Your task to perform on an android device: uninstall "Facebook Lite" Image 0: 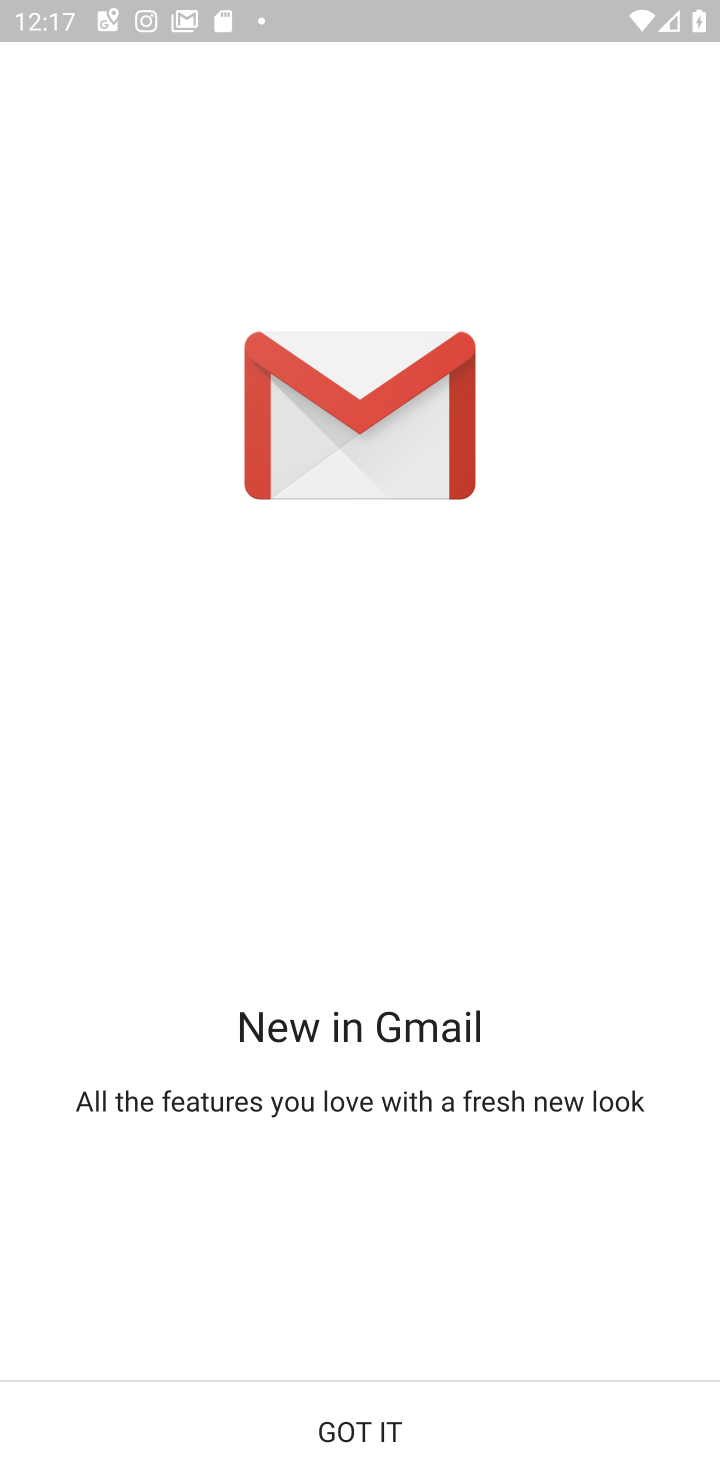
Step 0: press home button
Your task to perform on an android device: uninstall "Facebook Lite" Image 1: 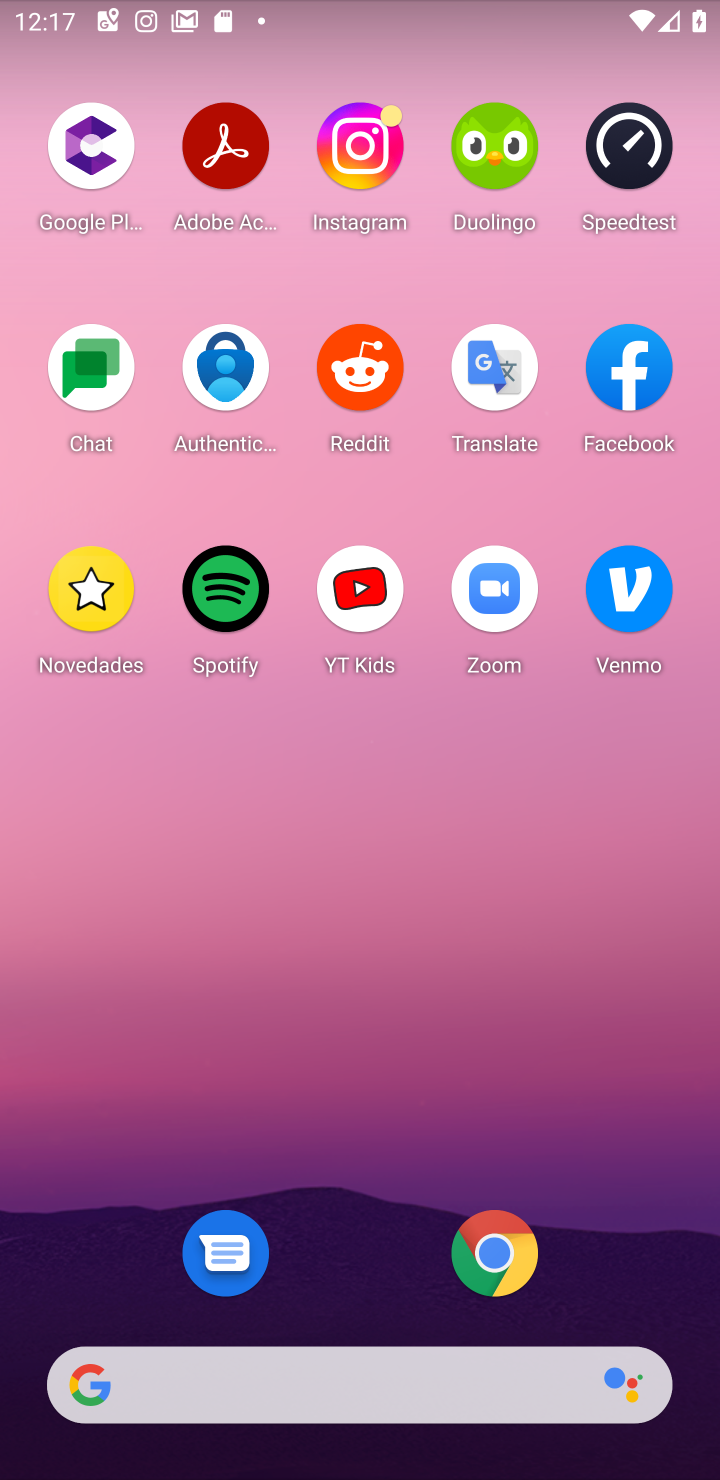
Step 1: drag from (318, 1198) to (330, 131)
Your task to perform on an android device: uninstall "Facebook Lite" Image 2: 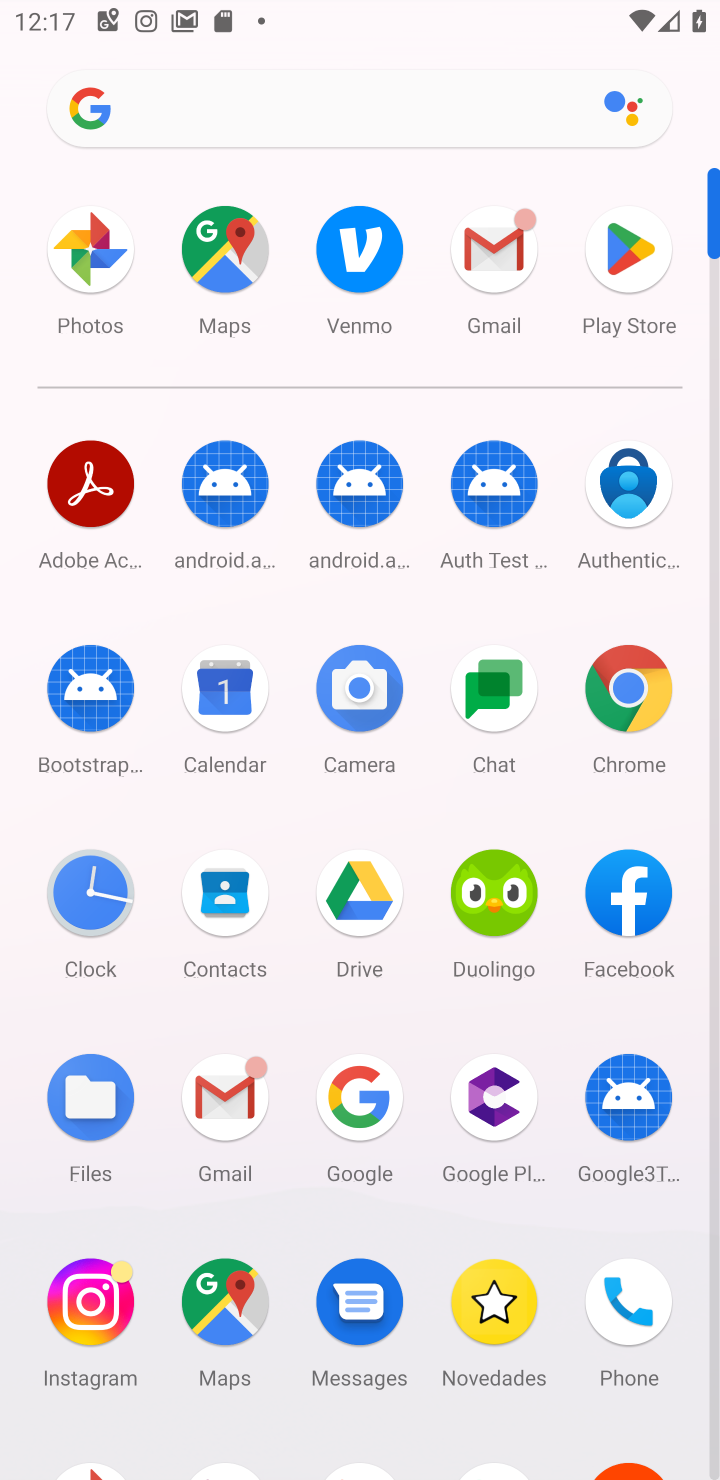
Step 2: click (626, 245)
Your task to perform on an android device: uninstall "Facebook Lite" Image 3: 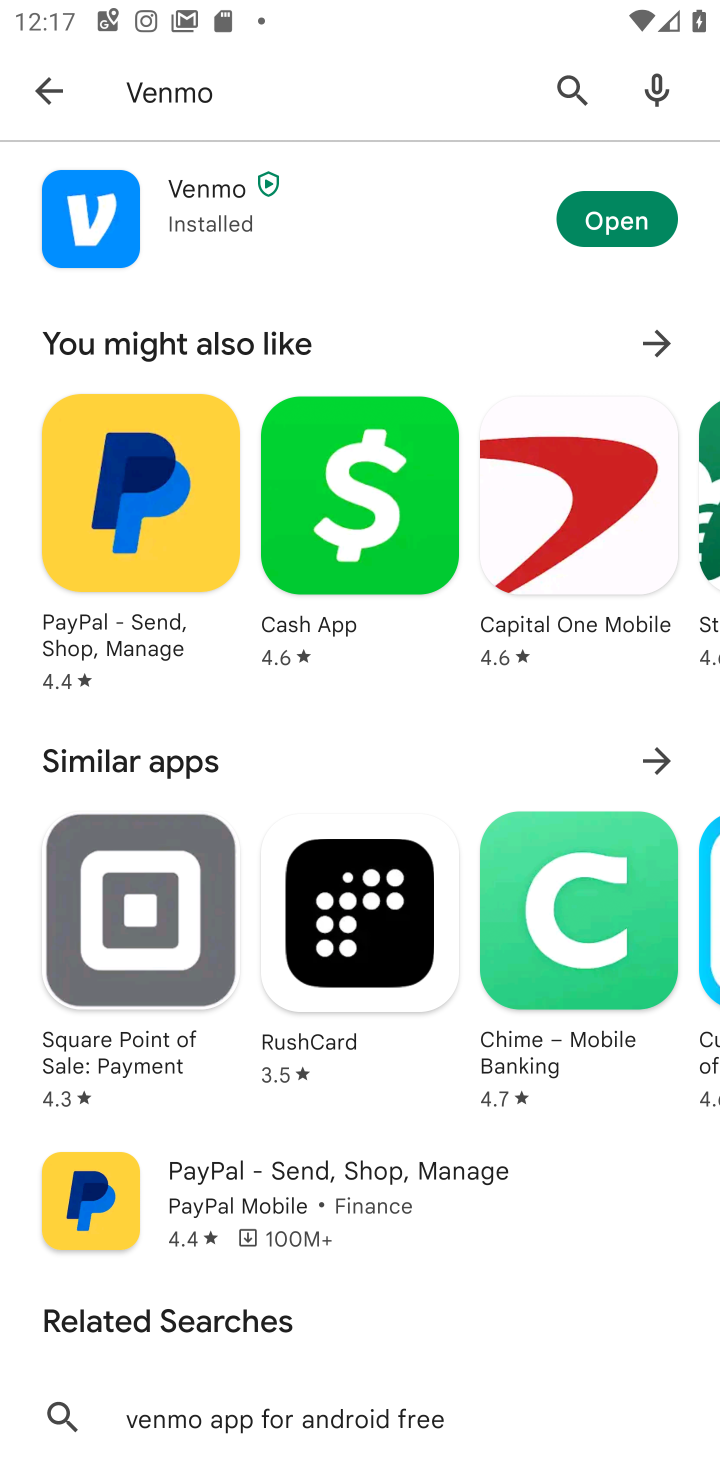
Step 3: click (357, 84)
Your task to perform on an android device: uninstall "Facebook Lite" Image 4: 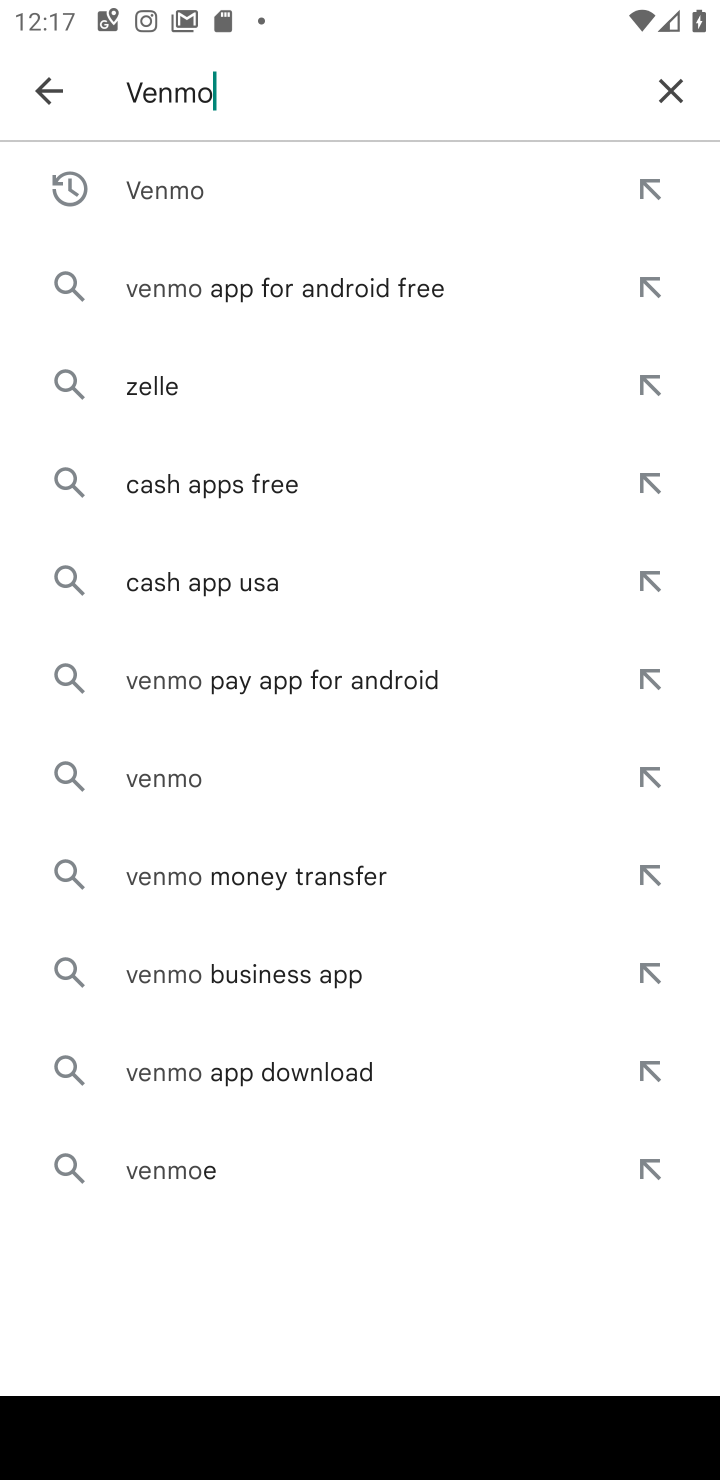
Step 4: click (677, 92)
Your task to perform on an android device: uninstall "Facebook Lite" Image 5: 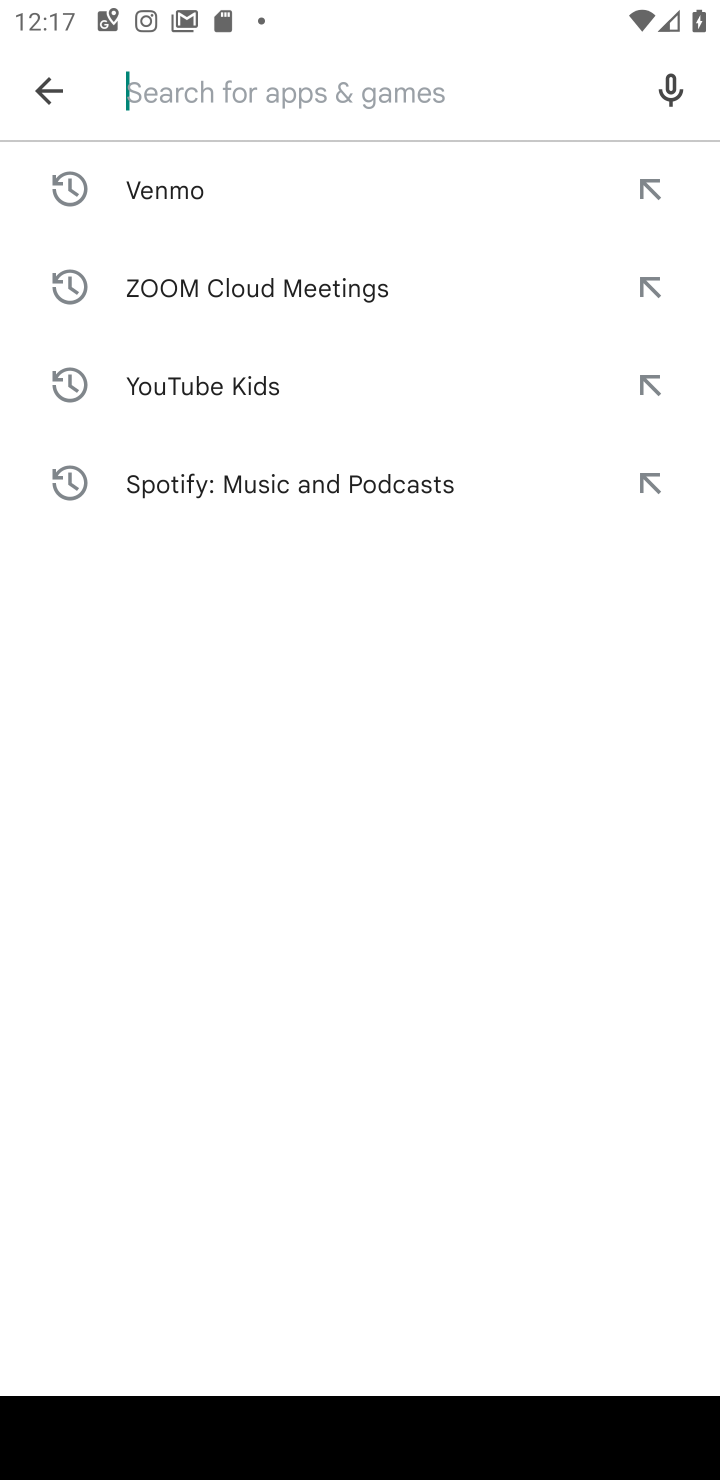
Step 5: type "Facebook Lite"
Your task to perform on an android device: uninstall "Facebook Lite" Image 6: 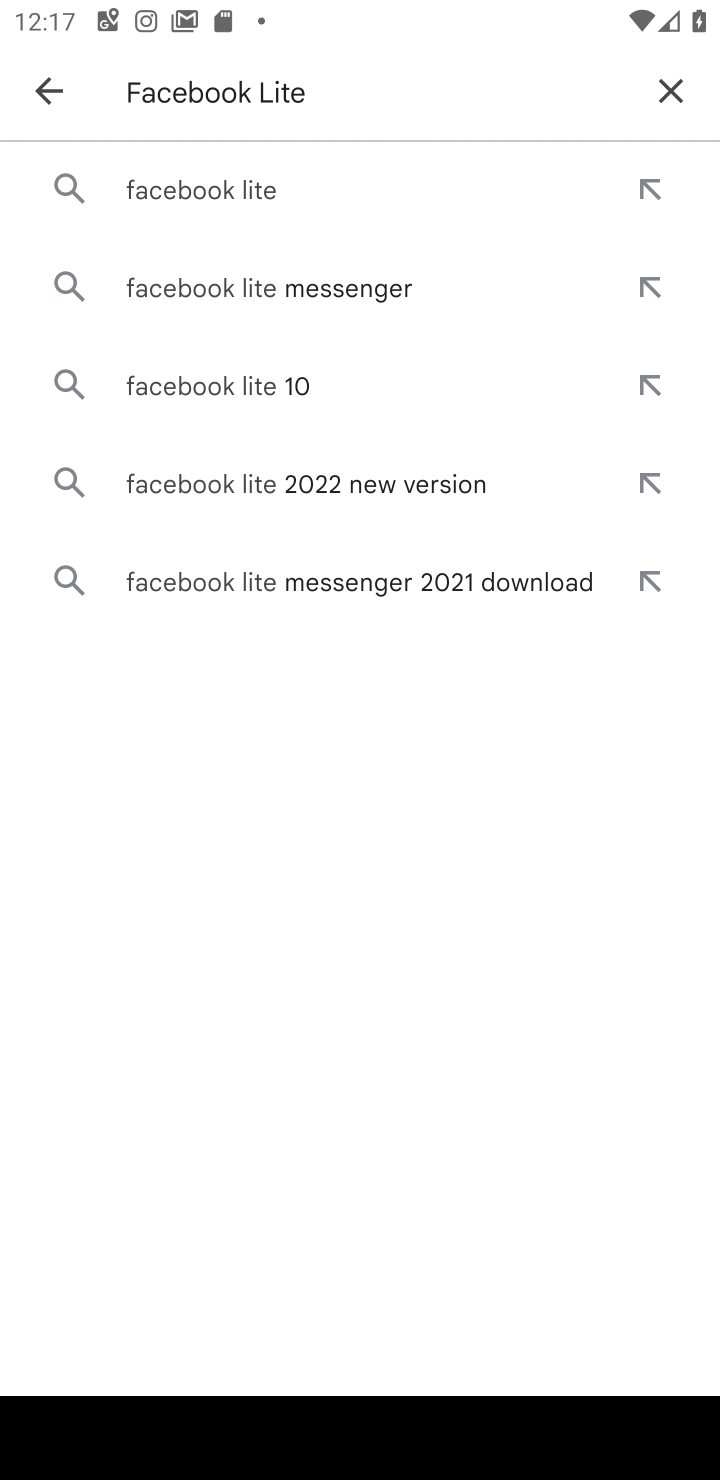
Step 6: press enter
Your task to perform on an android device: uninstall "Facebook Lite" Image 7: 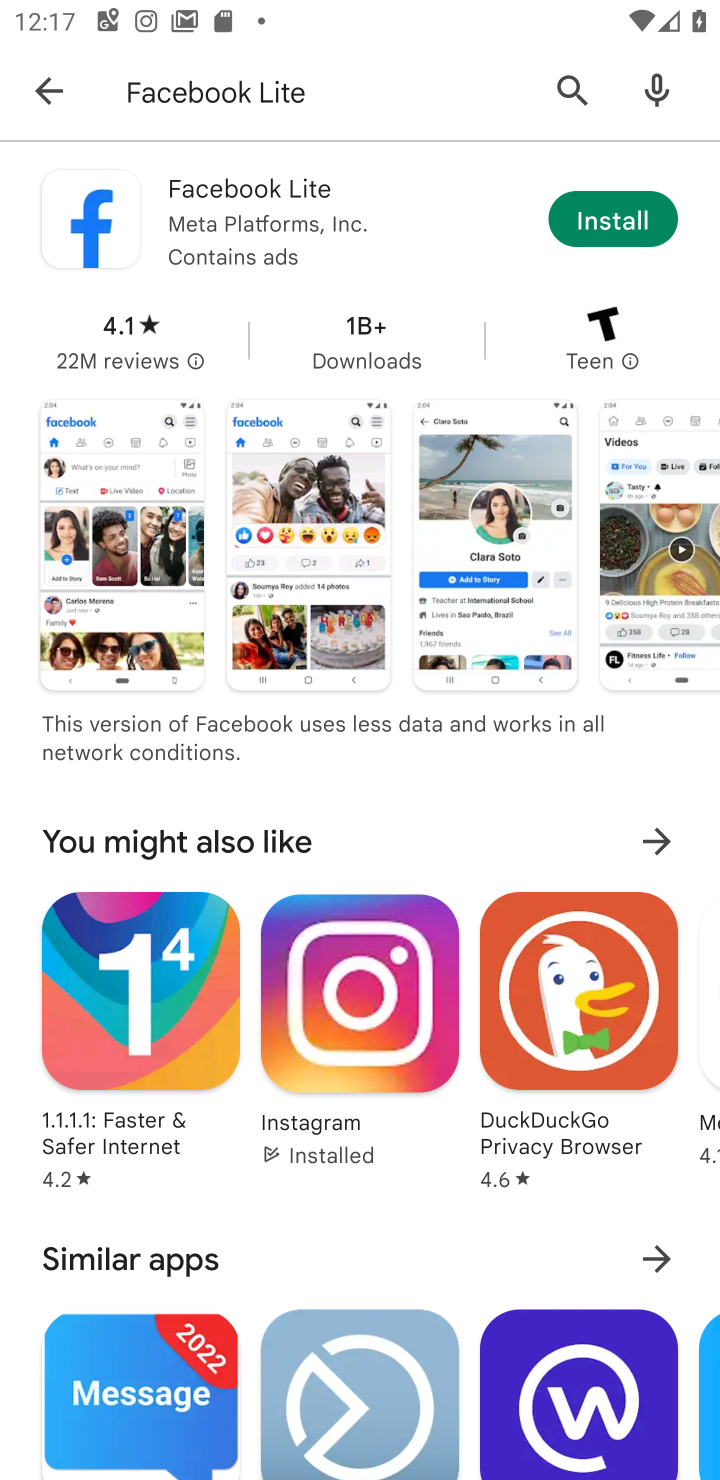
Step 7: task complete